Your task to perform on an android device: open wifi settings Image 0: 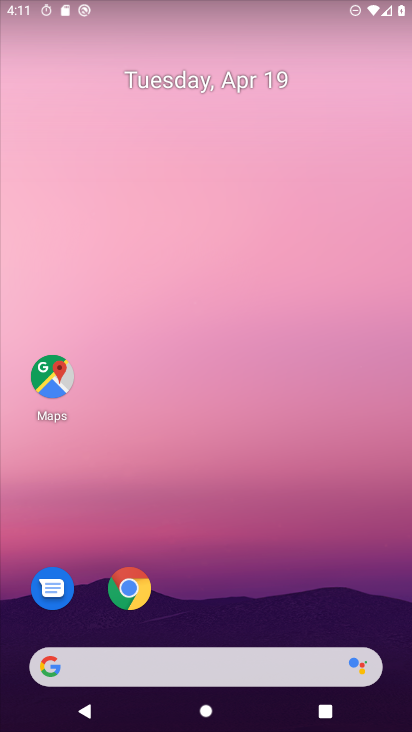
Step 0: drag from (221, 585) to (250, 30)
Your task to perform on an android device: open wifi settings Image 1: 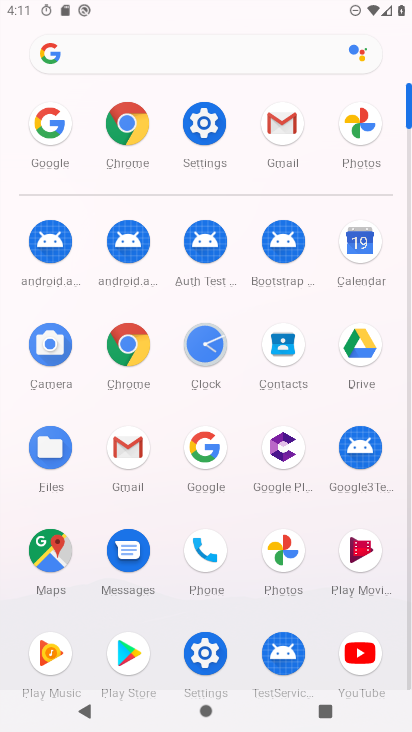
Step 1: click (206, 126)
Your task to perform on an android device: open wifi settings Image 2: 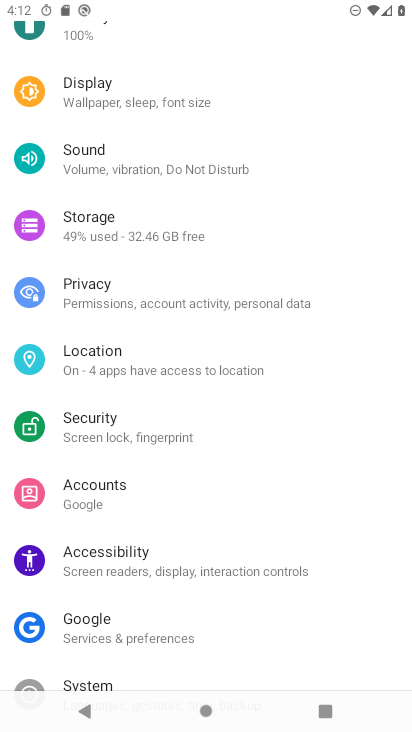
Step 2: drag from (218, 488) to (248, 203)
Your task to perform on an android device: open wifi settings Image 3: 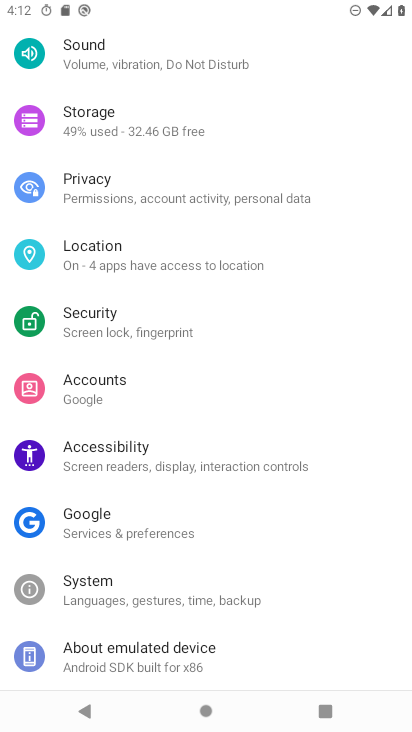
Step 3: drag from (218, 79) to (235, 653)
Your task to perform on an android device: open wifi settings Image 4: 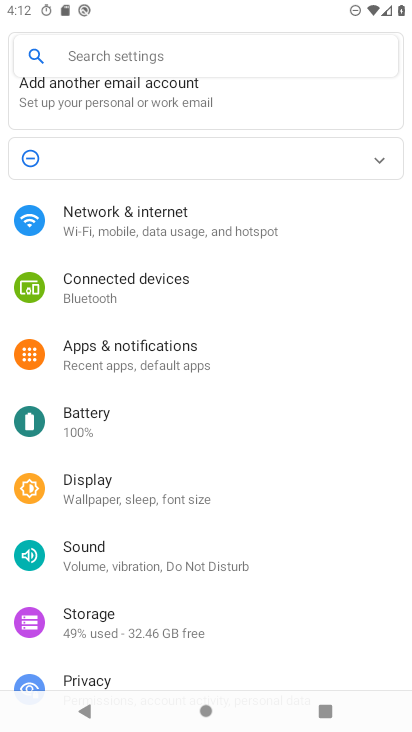
Step 4: click (184, 221)
Your task to perform on an android device: open wifi settings Image 5: 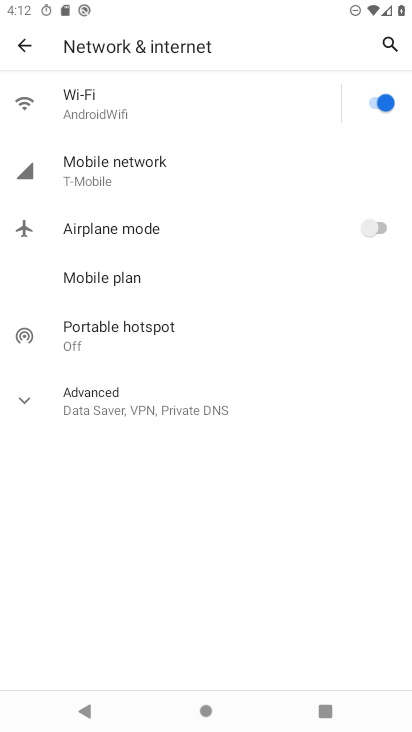
Step 5: click (167, 105)
Your task to perform on an android device: open wifi settings Image 6: 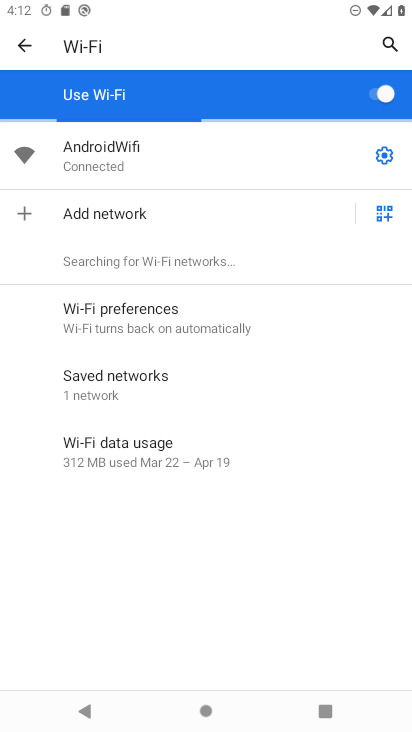
Step 6: task complete